Your task to perform on an android device: snooze an email in the gmail app Image 0: 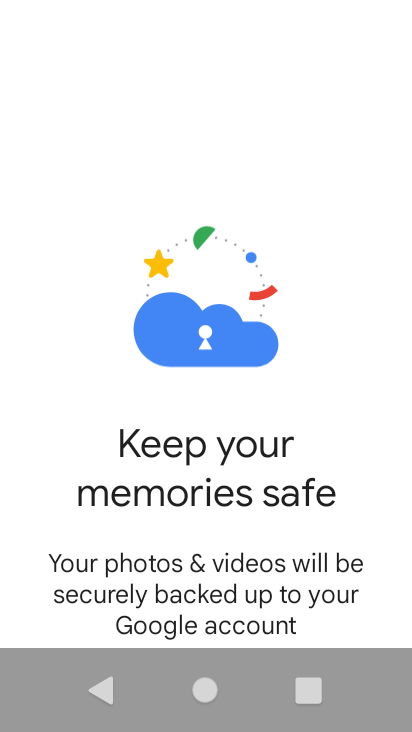
Step 0: press home button
Your task to perform on an android device: snooze an email in the gmail app Image 1: 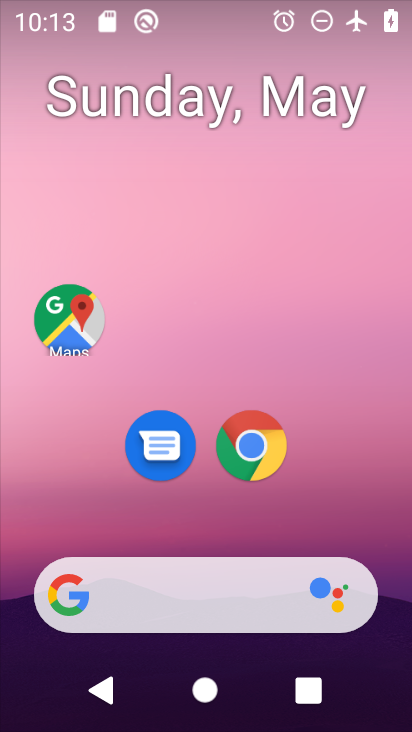
Step 1: drag from (206, 609) to (191, 252)
Your task to perform on an android device: snooze an email in the gmail app Image 2: 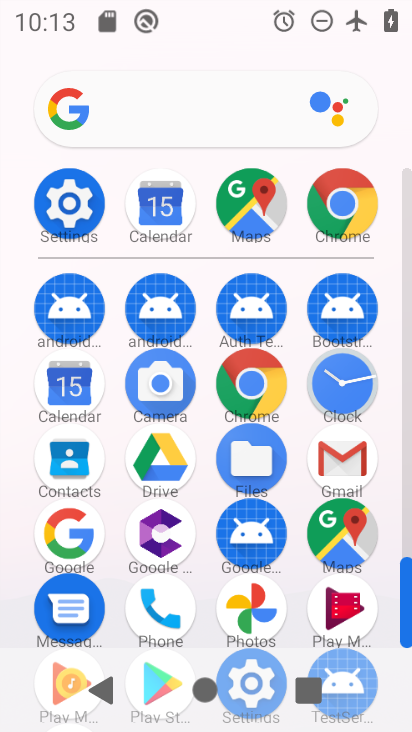
Step 2: click (346, 461)
Your task to perform on an android device: snooze an email in the gmail app Image 3: 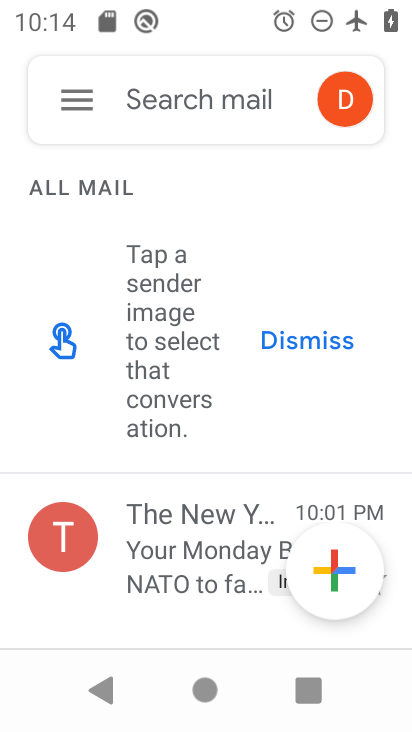
Step 3: click (86, 108)
Your task to perform on an android device: snooze an email in the gmail app Image 4: 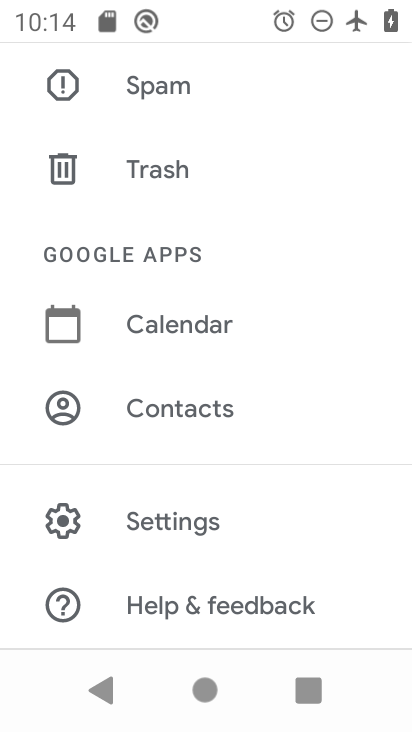
Step 4: drag from (173, 308) to (150, 527)
Your task to perform on an android device: snooze an email in the gmail app Image 5: 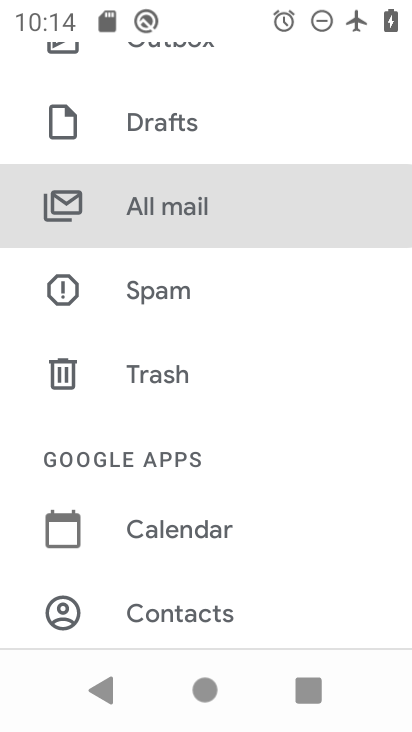
Step 5: drag from (137, 437) to (148, 284)
Your task to perform on an android device: snooze an email in the gmail app Image 6: 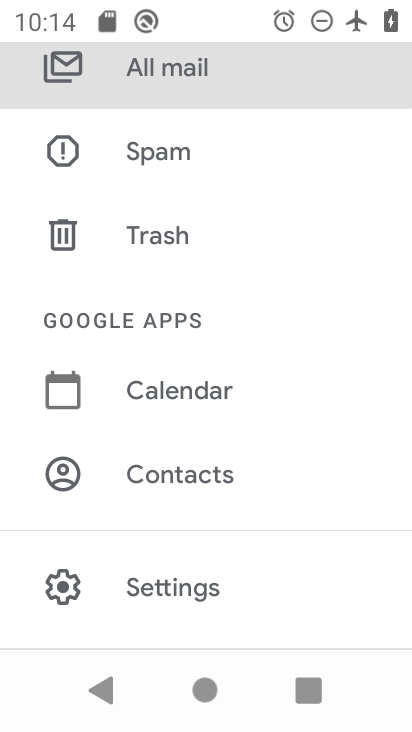
Step 6: drag from (154, 268) to (124, 444)
Your task to perform on an android device: snooze an email in the gmail app Image 7: 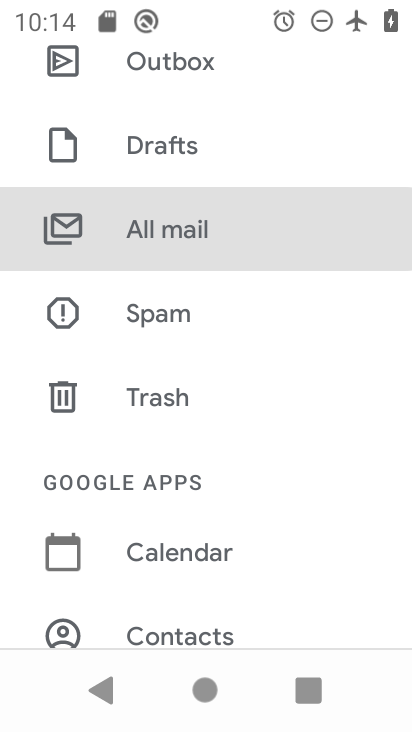
Step 7: click (153, 236)
Your task to perform on an android device: snooze an email in the gmail app Image 8: 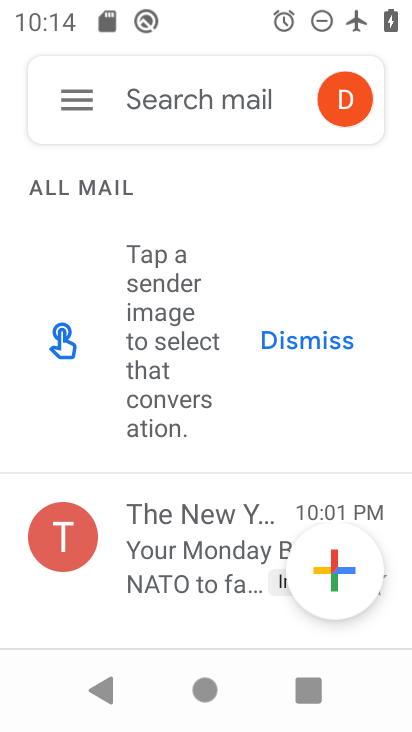
Step 8: click (184, 559)
Your task to perform on an android device: snooze an email in the gmail app Image 9: 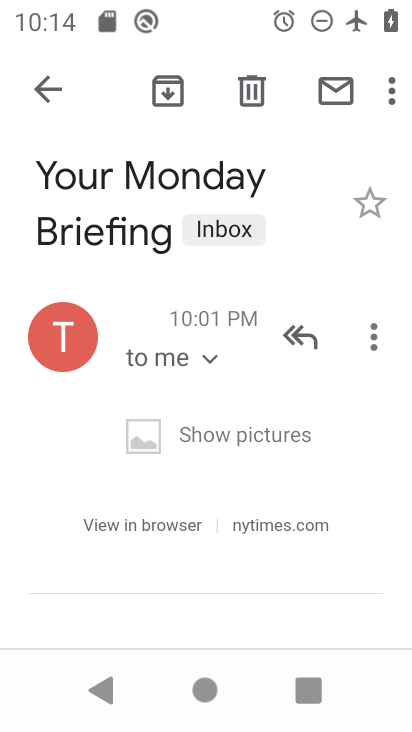
Step 9: click (391, 99)
Your task to perform on an android device: snooze an email in the gmail app Image 10: 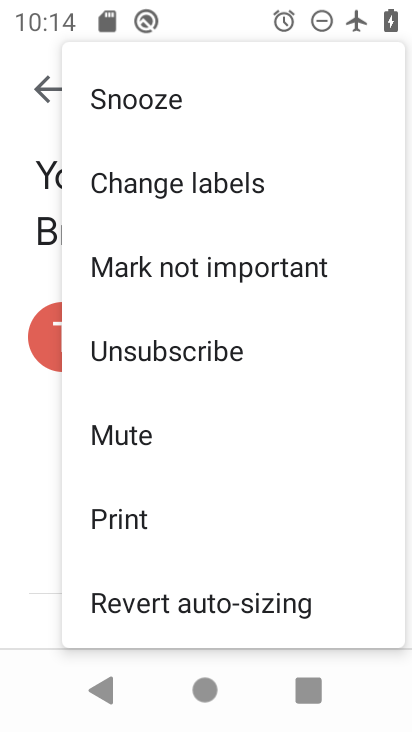
Step 10: click (198, 94)
Your task to perform on an android device: snooze an email in the gmail app Image 11: 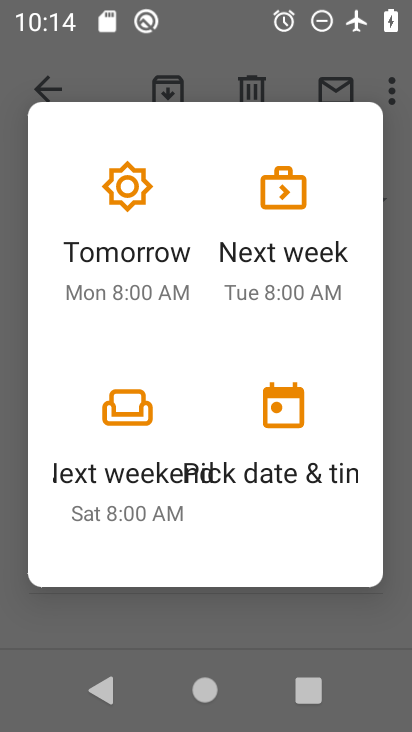
Step 11: click (146, 251)
Your task to perform on an android device: snooze an email in the gmail app Image 12: 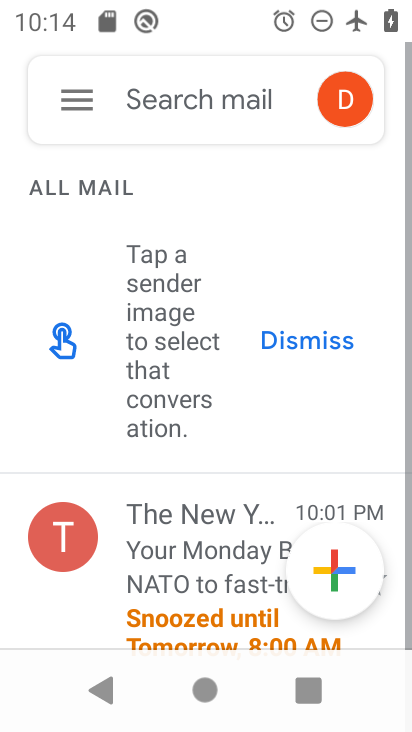
Step 12: task complete